Your task to perform on an android device: Set the phone to "Do not disturb". Image 0: 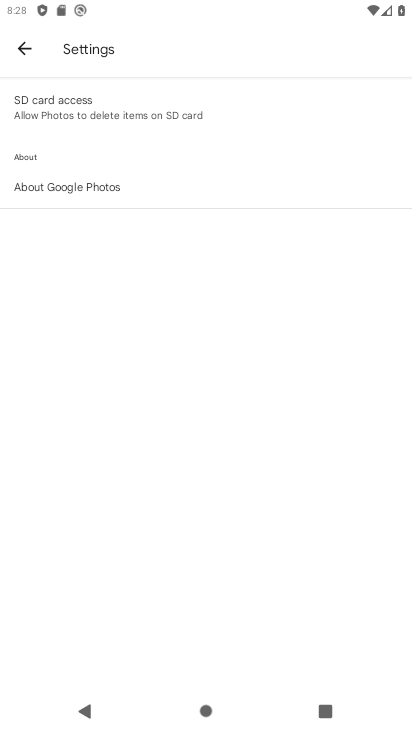
Step 0: press home button
Your task to perform on an android device: Set the phone to "Do not disturb". Image 1: 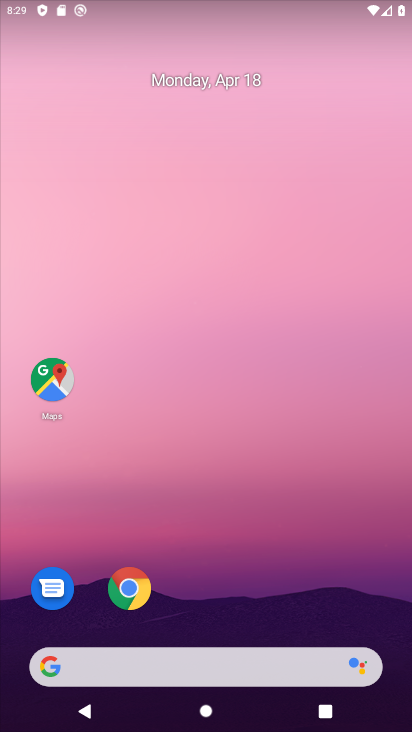
Step 1: drag from (236, 102) to (231, 632)
Your task to perform on an android device: Set the phone to "Do not disturb". Image 2: 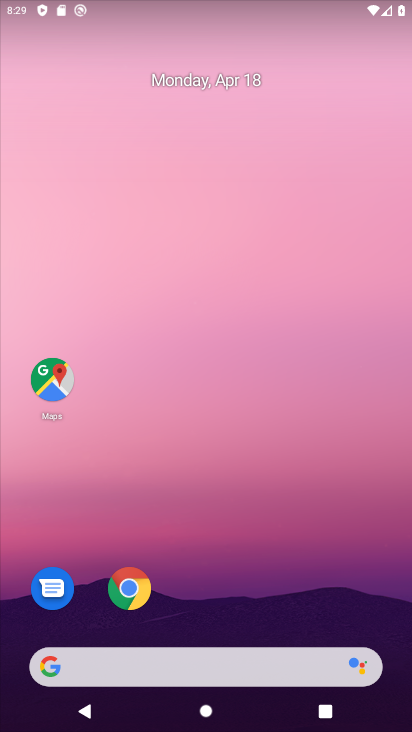
Step 2: drag from (167, 5) to (186, 655)
Your task to perform on an android device: Set the phone to "Do not disturb". Image 3: 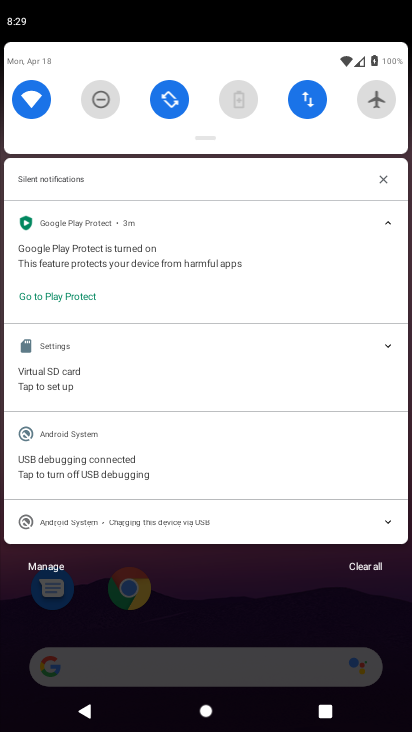
Step 3: drag from (199, 134) to (176, 627)
Your task to perform on an android device: Set the phone to "Do not disturb". Image 4: 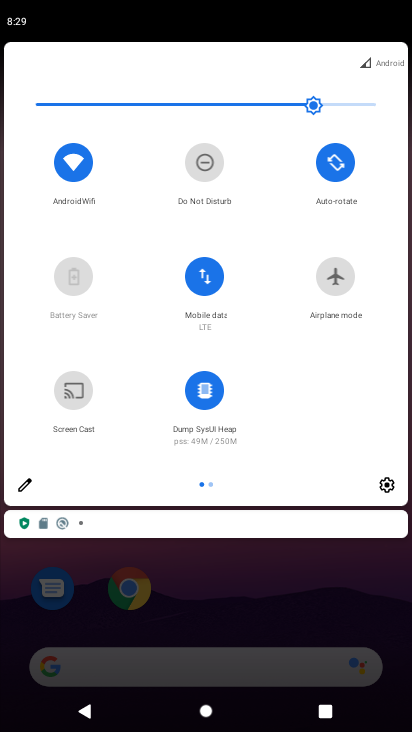
Step 4: click (206, 165)
Your task to perform on an android device: Set the phone to "Do not disturb". Image 5: 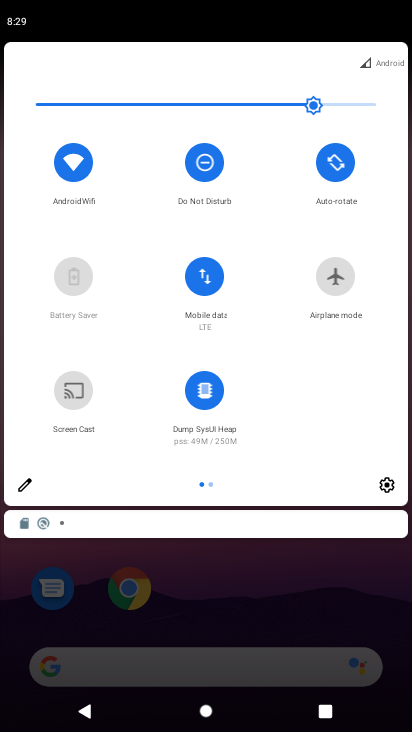
Step 5: task complete